Your task to perform on an android device: turn pop-ups on in chrome Image 0: 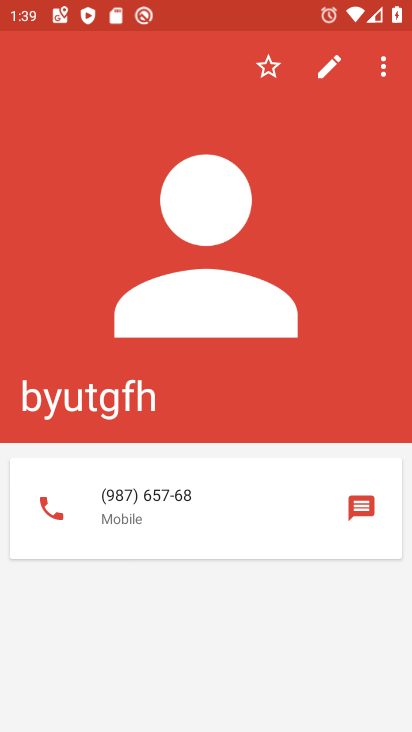
Step 0: press home button
Your task to perform on an android device: turn pop-ups on in chrome Image 1: 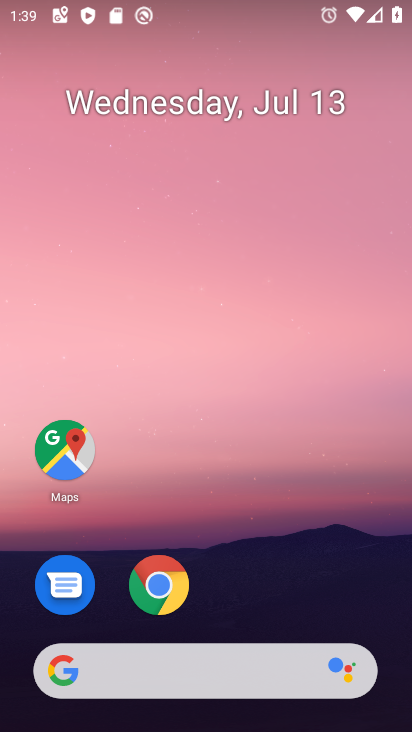
Step 1: click (153, 586)
Your task to perform on an android device: turn pop-ups on in chrome Image 2: 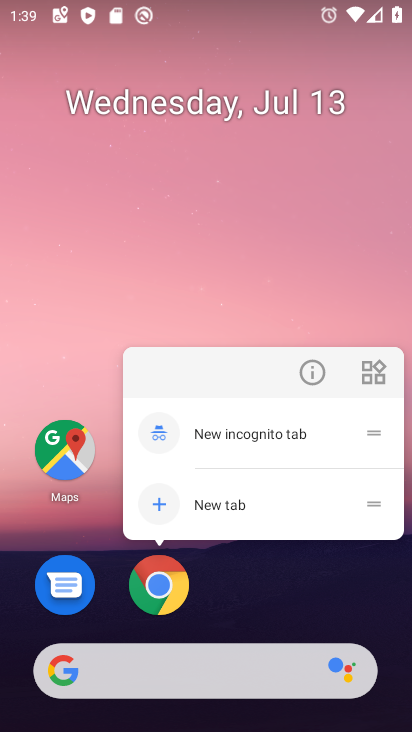
Step 2: click (153, 586)
Your task to perform on an android device: turn pop-ups on in chrome Image 3: 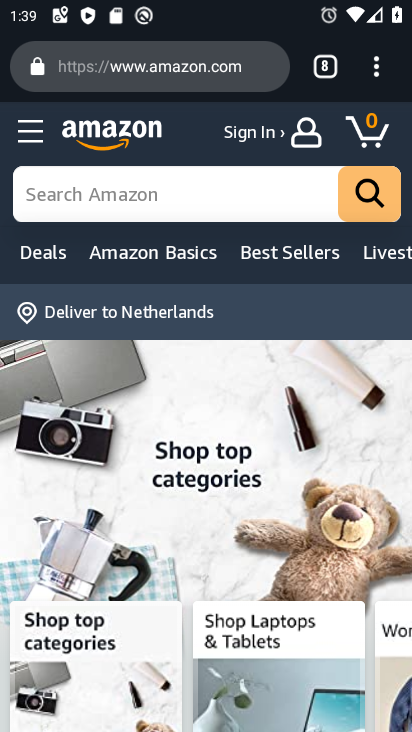
Step 3: drag from (385, 79) to (225, 597)
Your task to perform on an android device: turn pop-ups on in chrome Image 4: 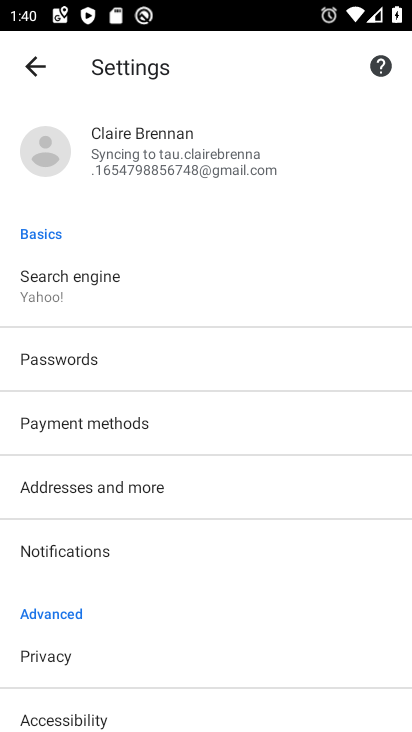
Step 4: drag from (164, 652) to (324, 214)
Your task to perform on an android device: turn pop-ups on in chrome Image 5: 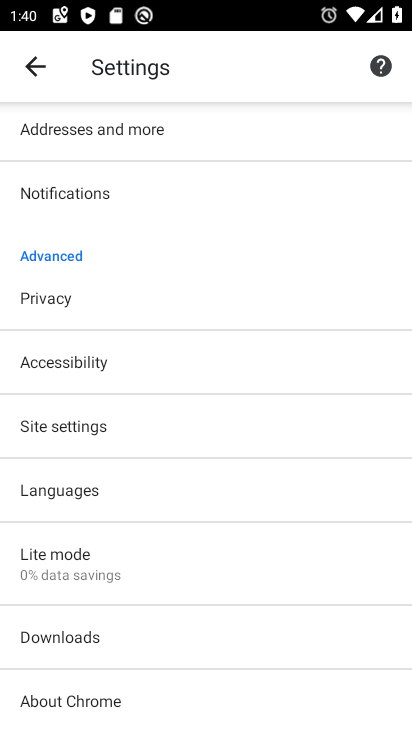
Step 5: click (155, 434)
Your task to perform on an android device: turn pop-ups on in chrome Image 6: 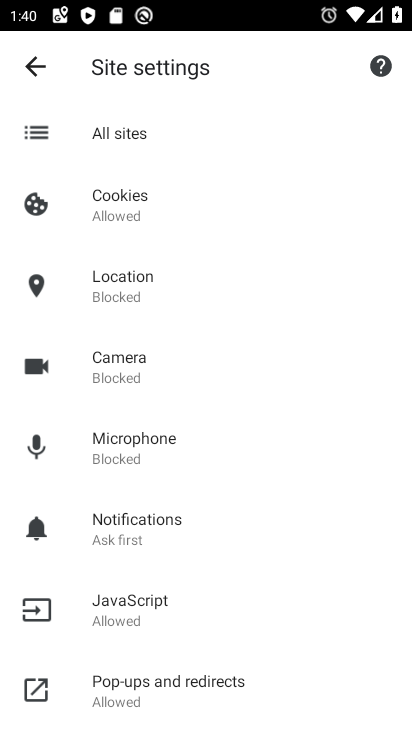
Step 6: click (167, 684)
Your task to perform on an android device: turn pop-ups on in chrome Image 7: 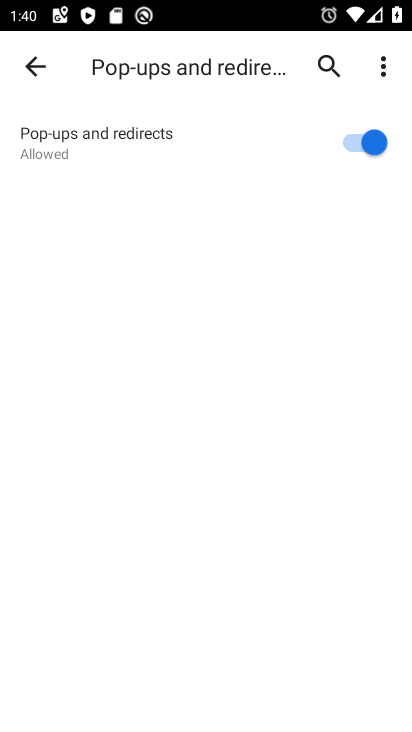
Step 7: task complete